Your task to perform on an android device: check out phone information Image 0: 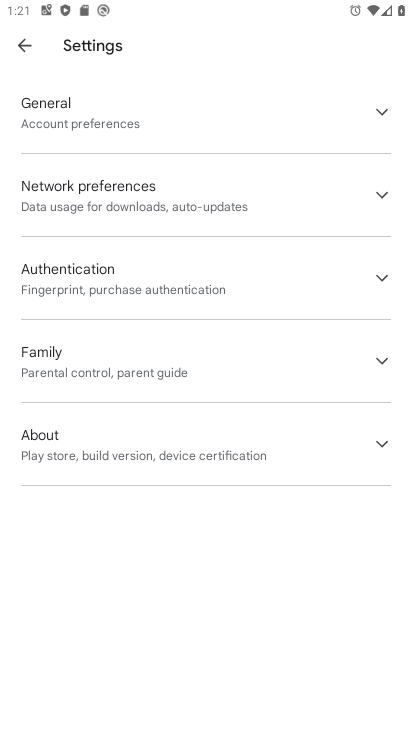
Step 0: drag from (316, 647) to (340, 151)
Your task to perform on an android device: check out phone information Image 1: 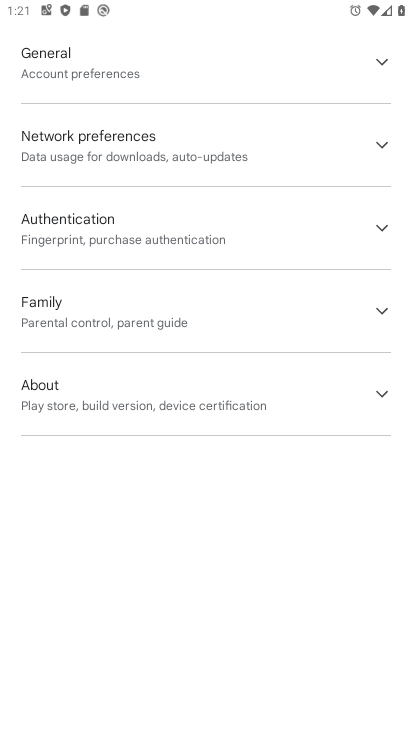
Step 1: press home button
Your task to perform on an android device: check out phone information Image 2: 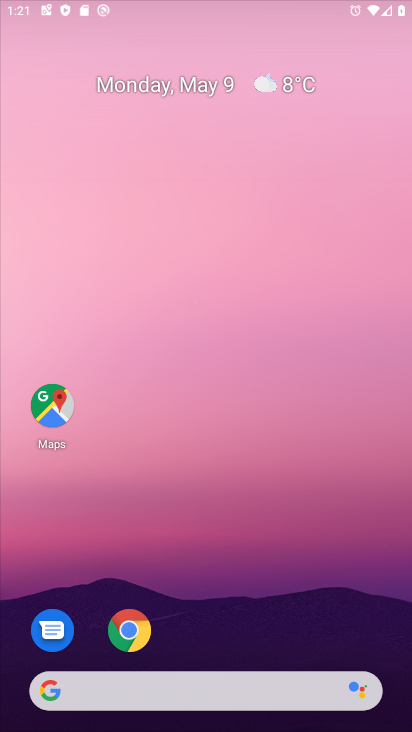
Step 2: drag from (323, 655) to (298, 31)
Your task to perform on an android device: check out phone information Image 3: 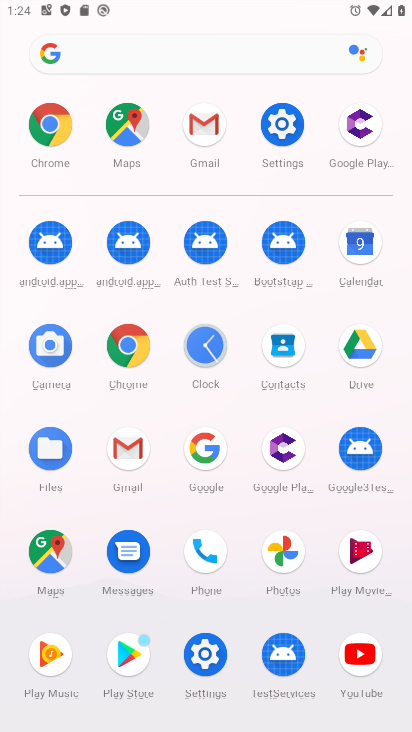
Step 3: click (202, 652)
Your task to perform on an android device: check out phone information Image 4: 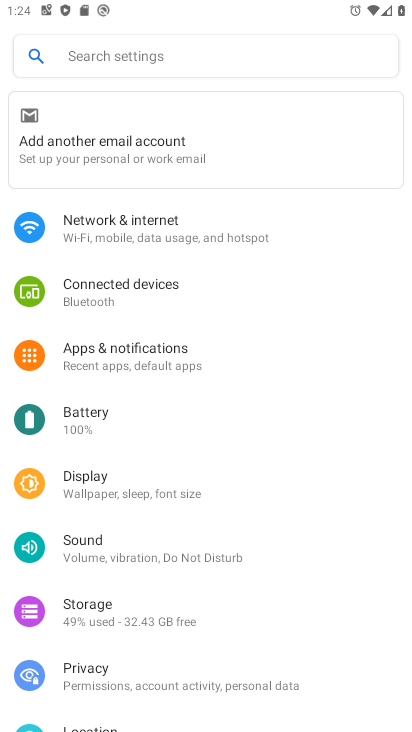
Step 4: drag from (128, 638) to (149, 17)
Your task to perform on an android device: check out phone information Image 5: 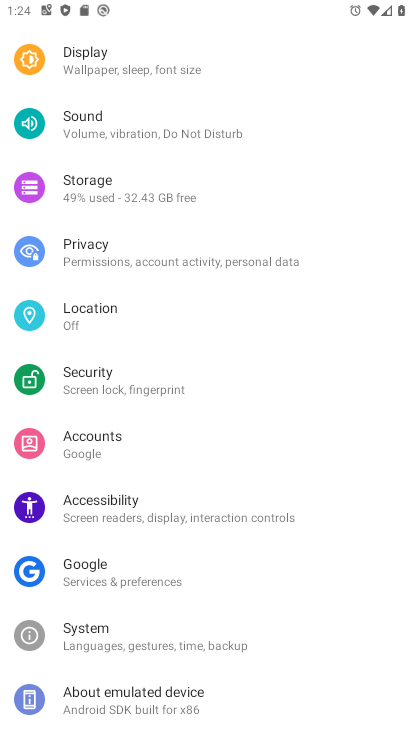
Step 5: click (220, 693)
Your task to perform on an android device: check out phone information Image 6: 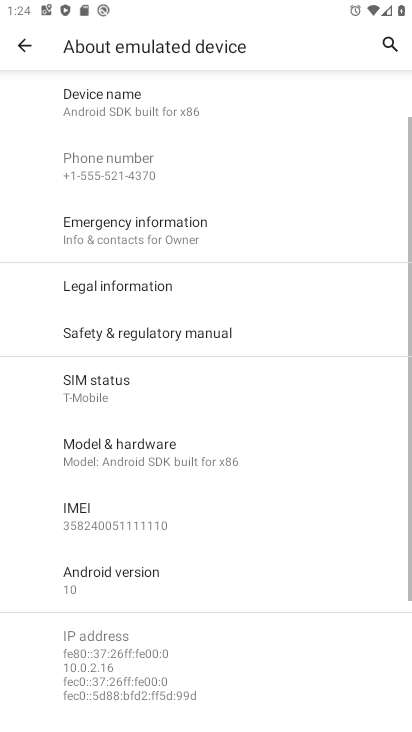
Step 6: click (168, 291)
Your task to perform on an android device: check out phone information Image 7: 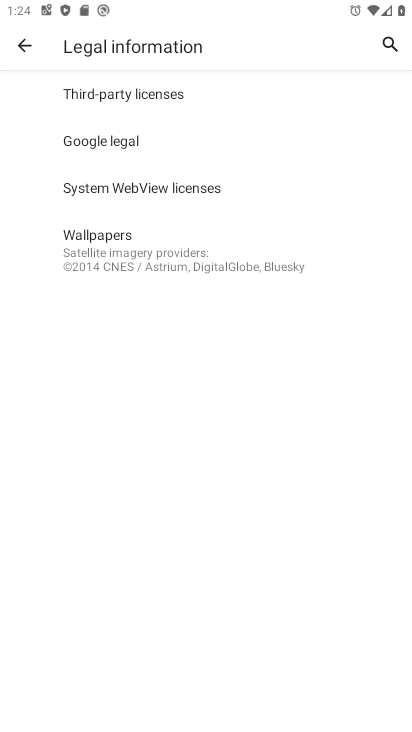
Step 7: task complete